Your task to perform on an android device: uninstall "Google Play Music" Image 0: 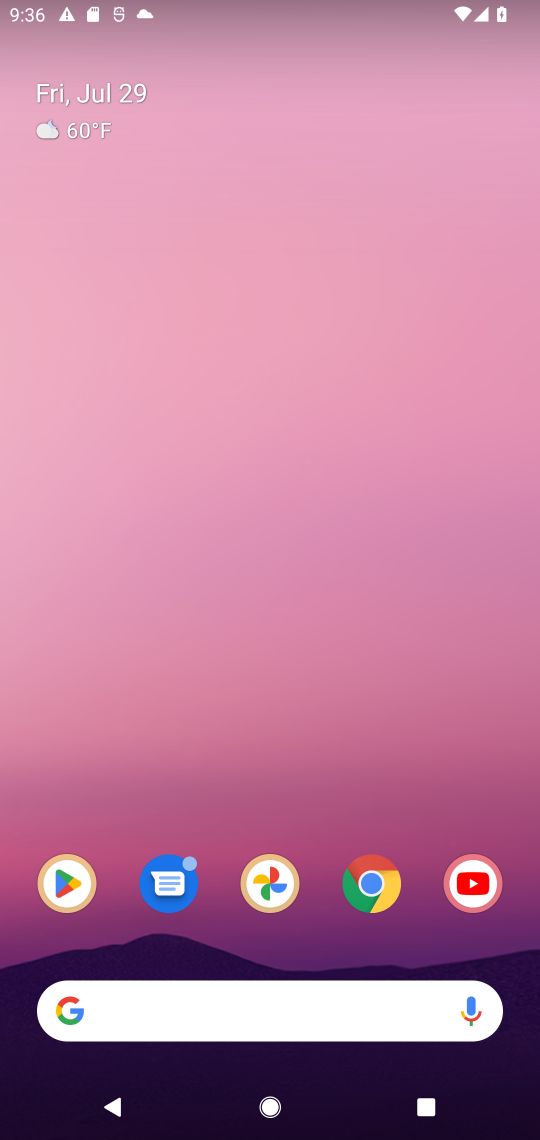
Step 0: click (73, 889)
Your task to perform on an android device: uninstall "Google Play Music" Image 1: 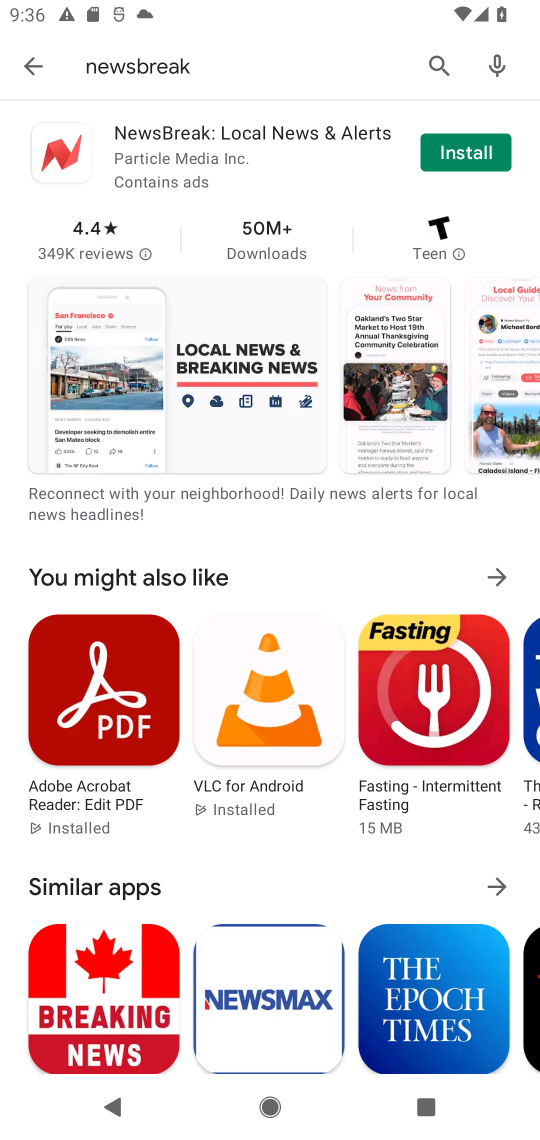
Step 1: click (197, 74)
Your task to perform on an android device: uninstall "Google Play Music" Image 2: 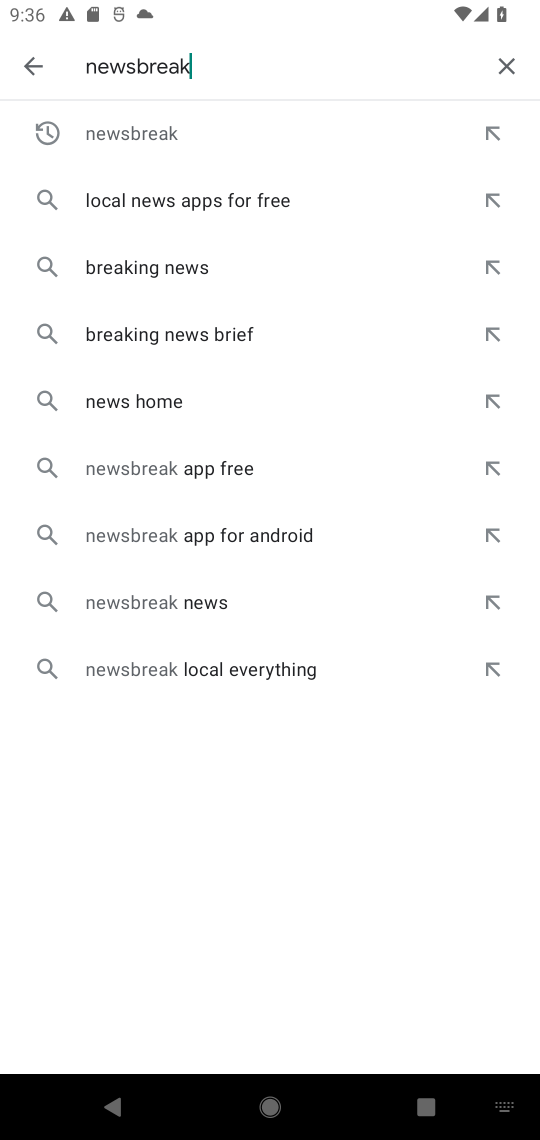
Step 2: click (512, 58)
Your task to perform on an android device: uninstall "Google Play Music" Image 3: 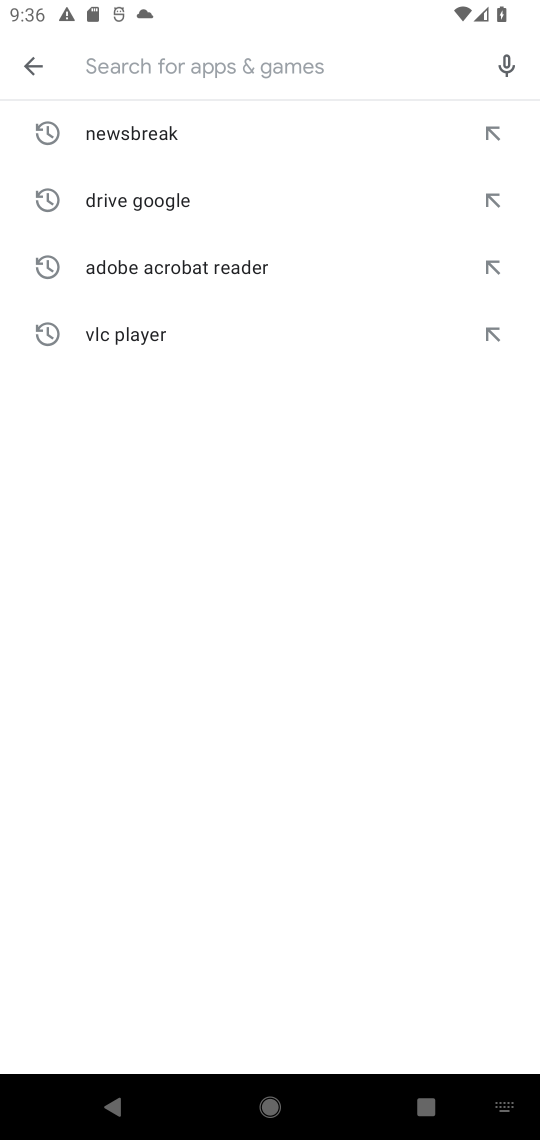
Step 3: type "googleplay Music"
Your task to perform on an android device: uninstall "Google Play Music" Image 4: 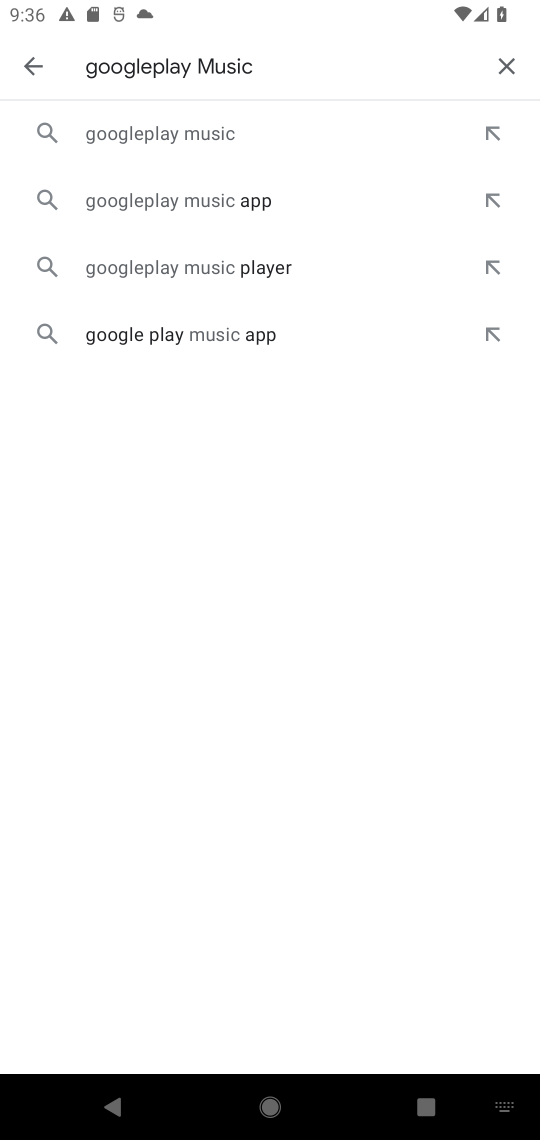
Step 4: click (138, 130)
Your task to perform on an android device: uninstall "Google Play Music" Image 5: 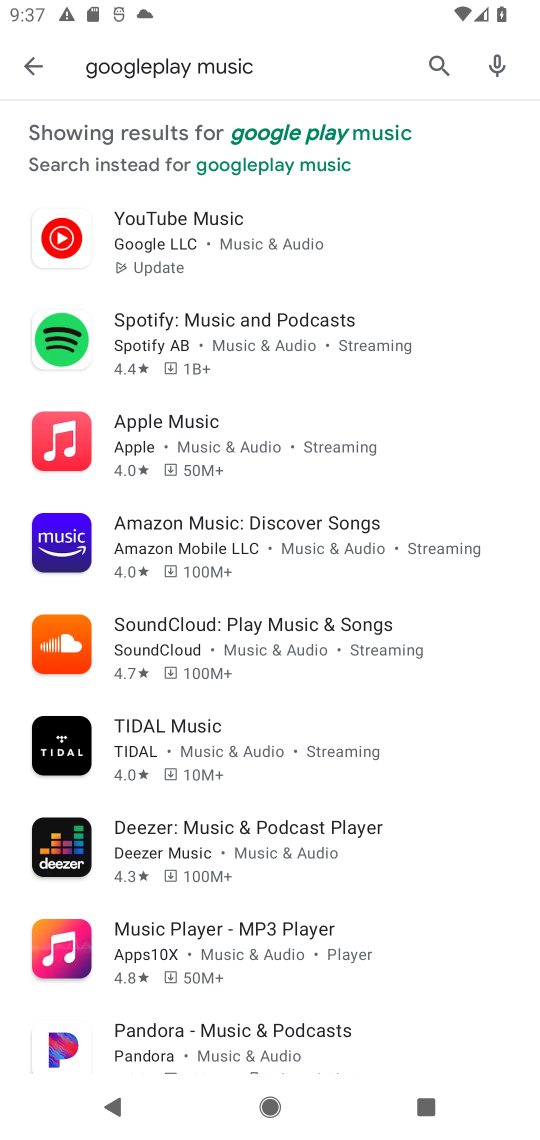
Step 5: task complete